Your task to perform on an android device: Search for seafood restaurants on Google Maps Image 0: 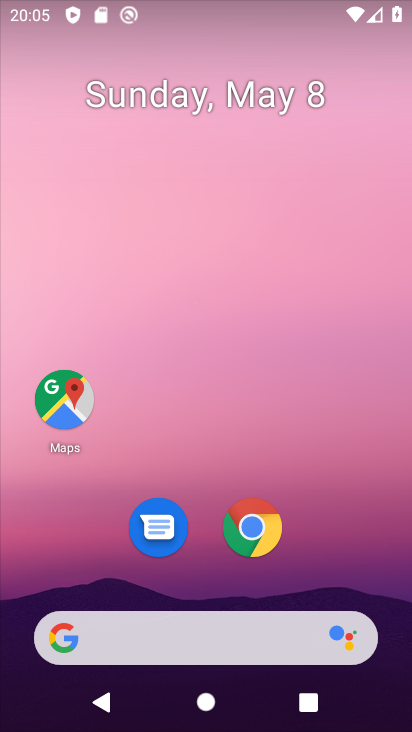
Step 0: press back button
Your task to perform on an android device: Search for seafood restaurants on Google Maps Image 1: 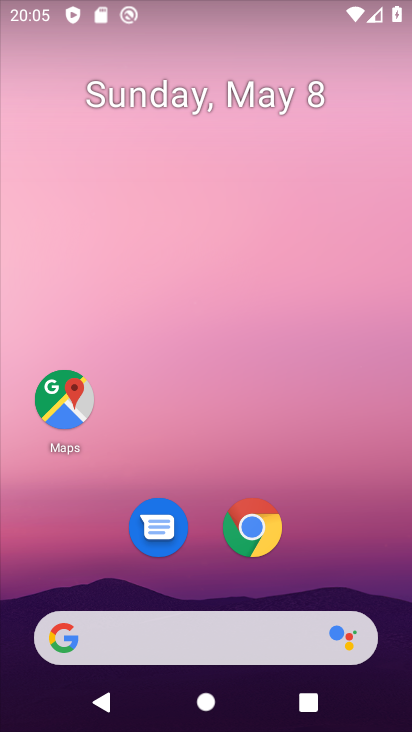
Step 1: drag from (338, 522) to (305, 15)
Your task to perform on an android device: Search for seafood restaurants on Google Maps Image 2: 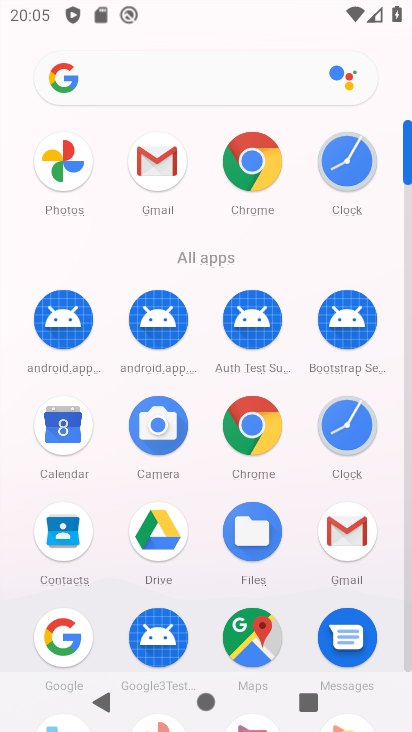
Step 2: click (250, 635)
Your task to perform on an android device: Search for seafood restaurants on Google Maps Image 3: 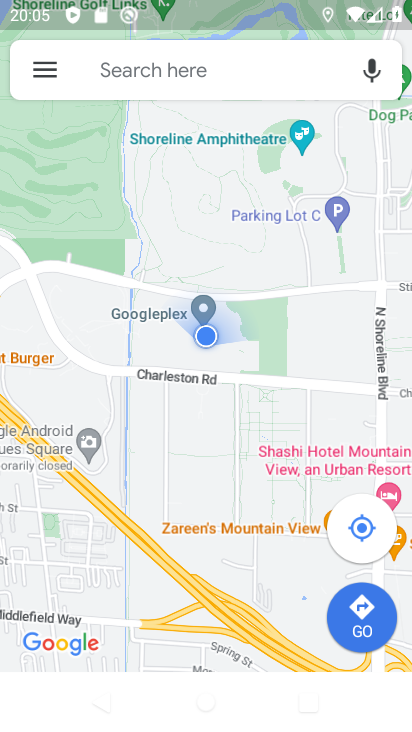
Step 3: click (223, 62)
Your task to perform on an android device: Search for seafood restaurants on Google Maps Image 4: 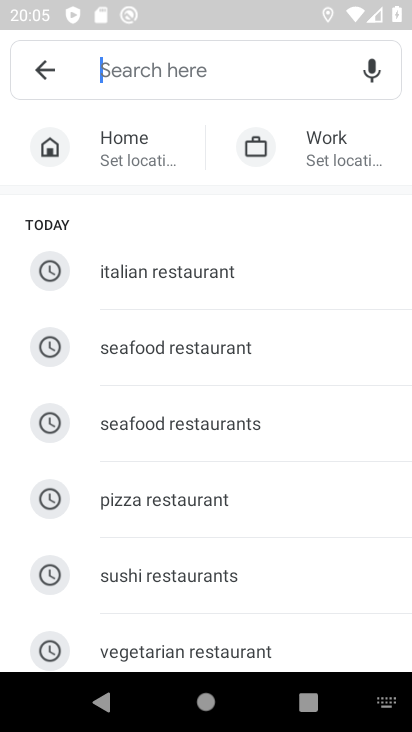
Step 4: click (175, 429)
Your task to perform on an android device: Search for seafood restaurants on Google Maps Image 5: 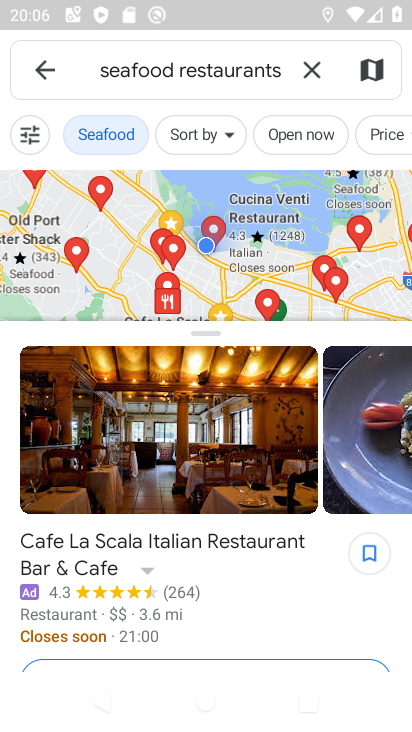
Step 5: task complete